Your task to perform on an android device: What's on my calendar tomorrow? Image 0: 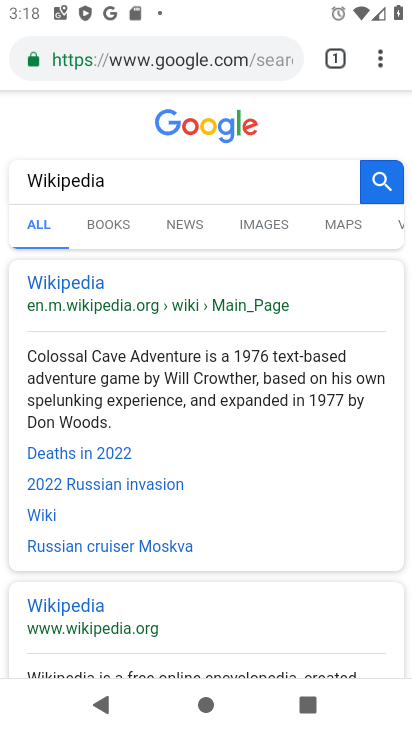
Step 0: press home button
Your task to perform on an android device: What's on my calendar tomorrow? Image 1: 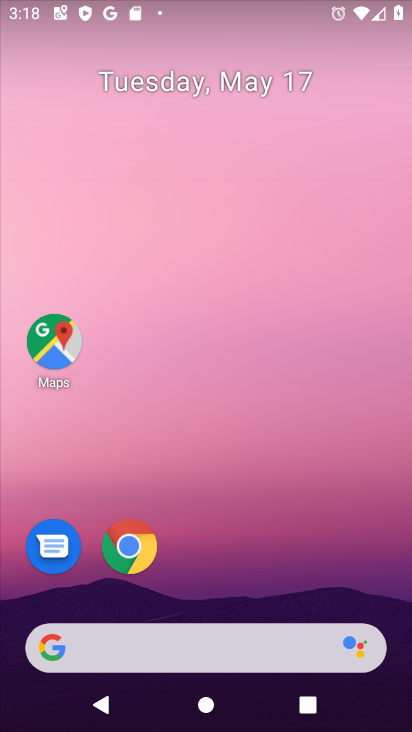
Step 1: drag from (393, 635) to (366, 338)
Your task to perform on an android device: What's on my calendar tomorrow? Image 2: 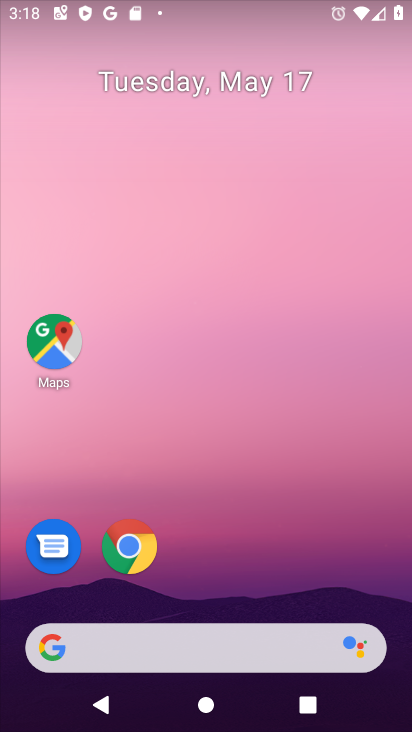
Step 2: drag from (403, 642) to (380, 331)
Your task to perform on an android device: What's on my calendar tomorrow? Image 3: 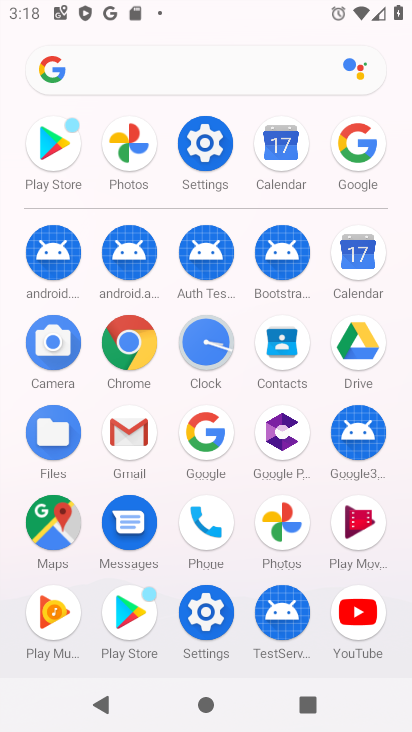
Step 3: click (365, 260)
Your task to perform on an android device: What's on my calendar tomorrow? Image 4: 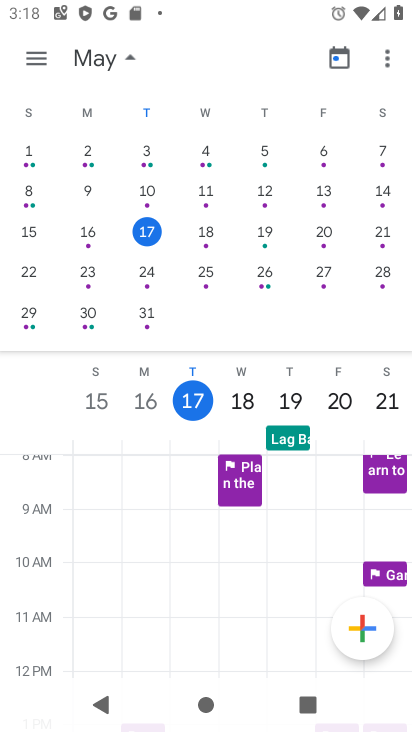
Step 4: click (133, 51)
Your task to perform on an android device: What's on my calendar tomorrow? Image 5: 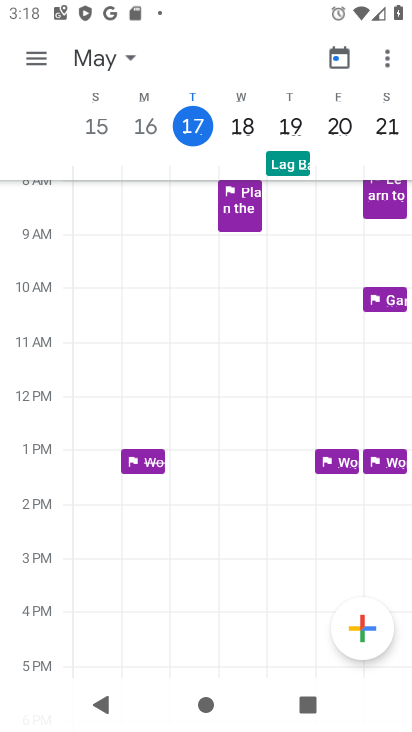
Step 5: click (240, 119)
Your task to perform on an android device: What's on my calendar tomorrow? Image 6: 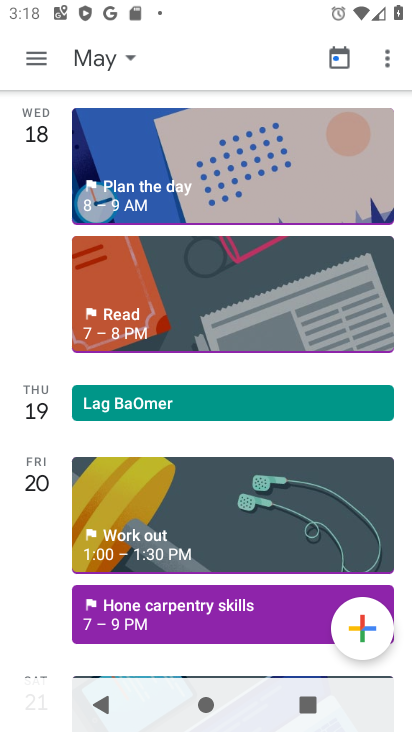
Step 6: task complete